Your task to perform on an android device: Search for pizza restaurants on Maps Image 0: 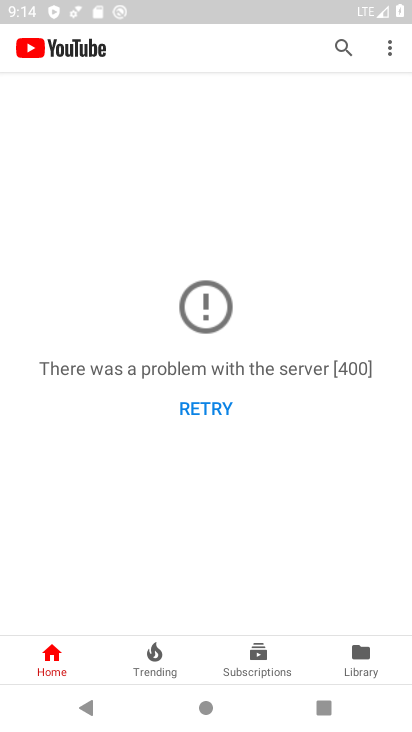
Step 0: press home button
Your task to perform on an android device: Search for pizza restaurants on Maps Image 1: 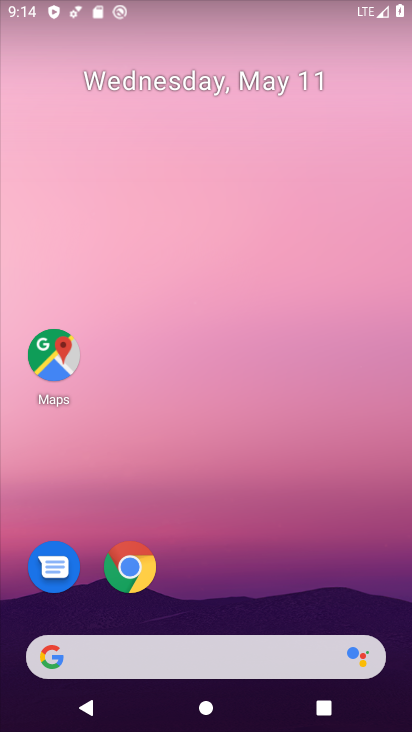
Step 1: click (54, 361)
Your task to perform on an android device: Search for pizza restaurants on Maps Image 2: 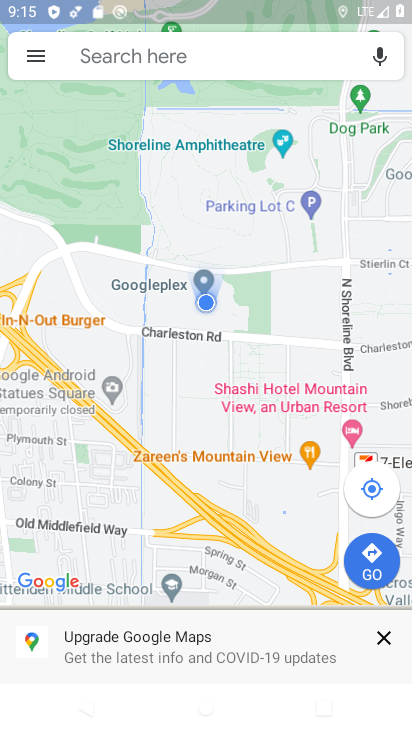
Step 2: click (180, 64)
Your task to perform on an android device: Search for pizza restaurants on Maps Image 3: 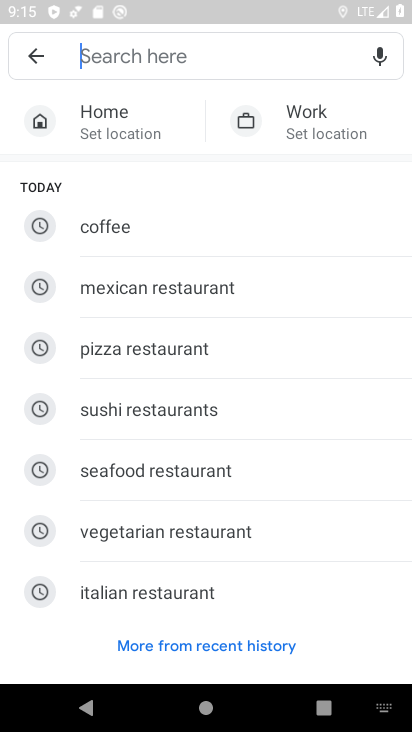
Step 3: click (187, 346)
Your task to perform on an android device: Search for pizza restaurants on Maps Image 4: 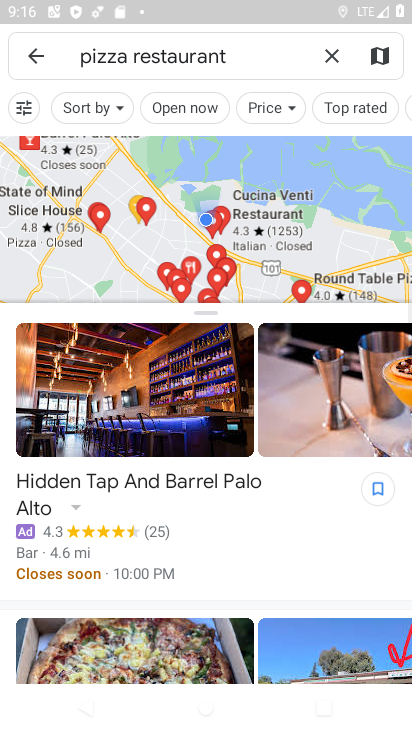
Step 4: task complete